Your task to perform on an android device: show emergency info Image 0: 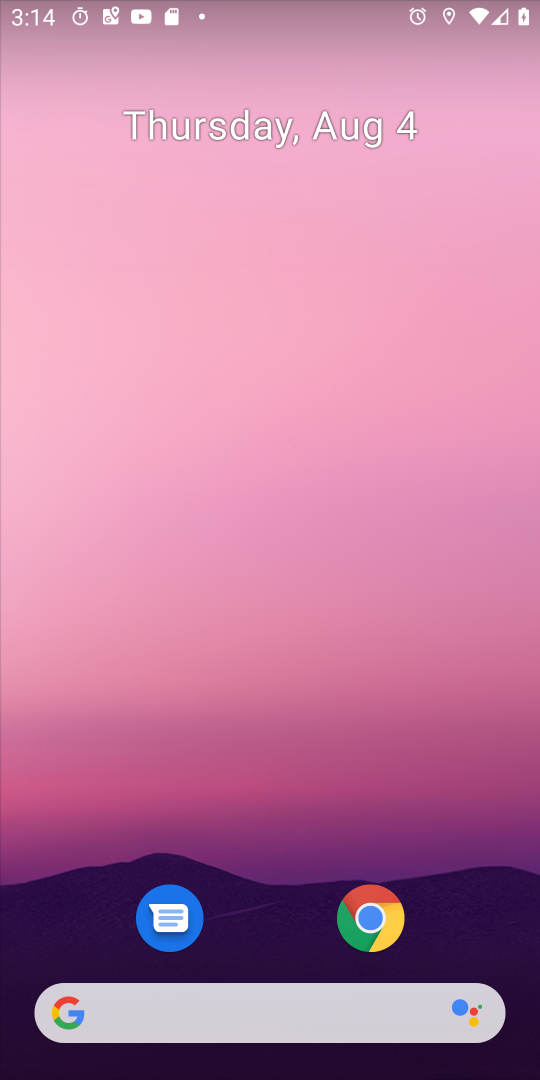
Step 0: drag from (232, 697) to (238, 259)
Your task to perform on an android device: show emergency info Image 1: 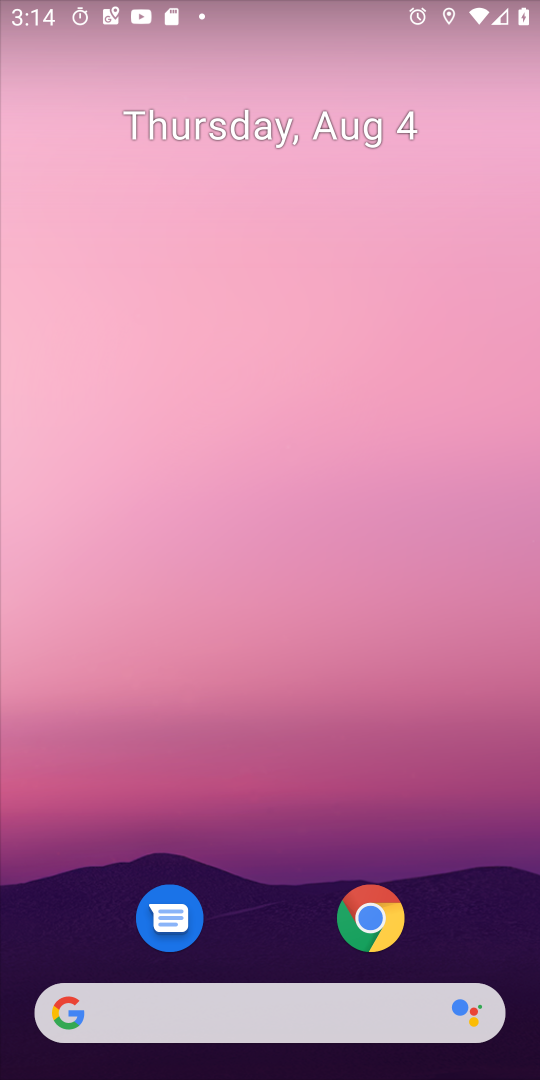
Step 1: drag from (272, 851) to (272, 296)
Your task to perform on an android device: show emergency info Image 2: 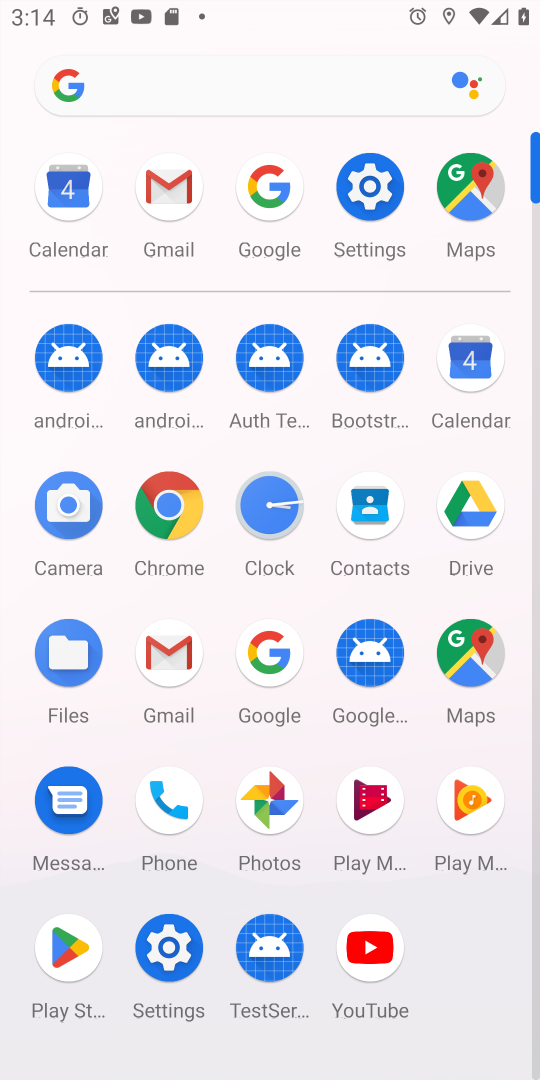
Step 2: click (365, 192)
Your task to perform on an android device: show emergency info Image 3: 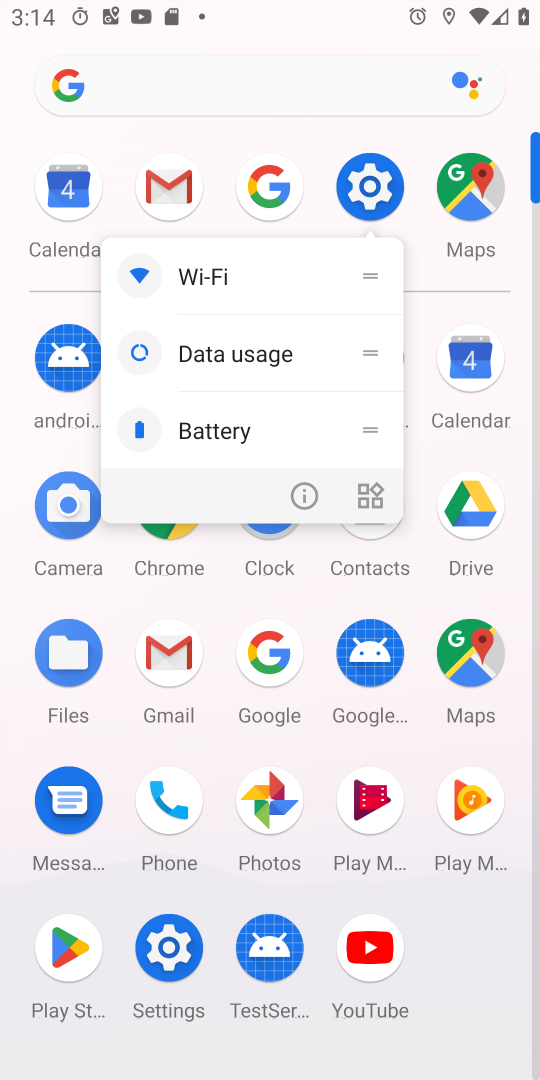
Step 3: click (365, 192)
Your task to perform on an android device: show emergency info Image 4: 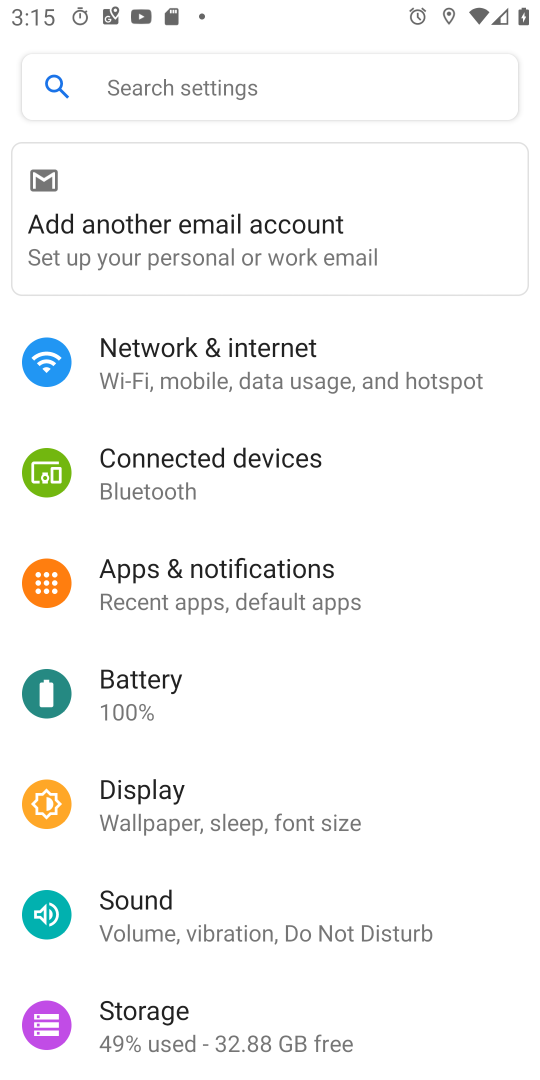
Step 4: drag from (353, 904) to (351, 366)
Your task to perform on an android device: show emergency info Image 5: 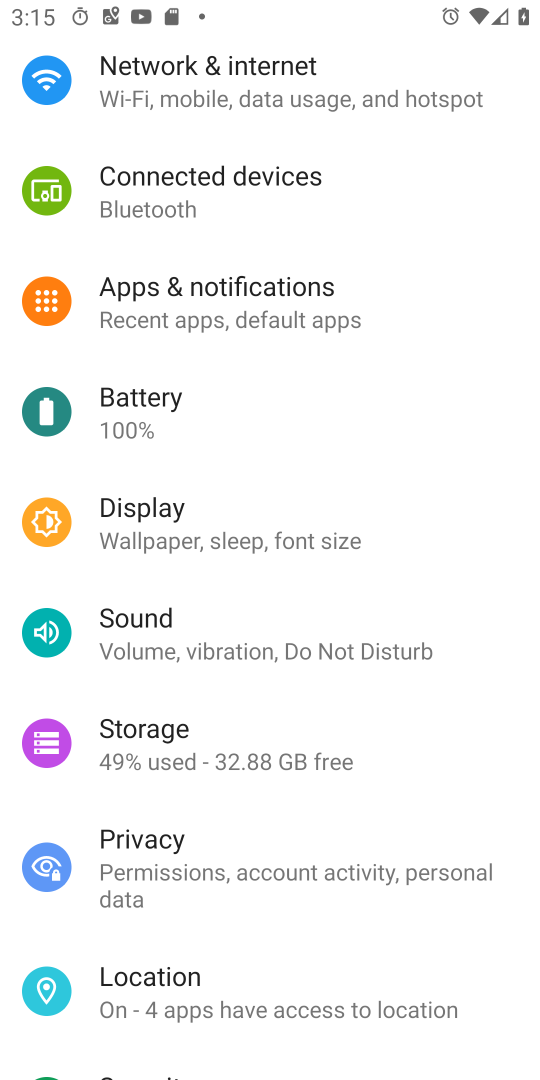
Step 5: drag from (305, 878) to (307, 344)
Your task to perform on an android device: show emergency info Image 6: 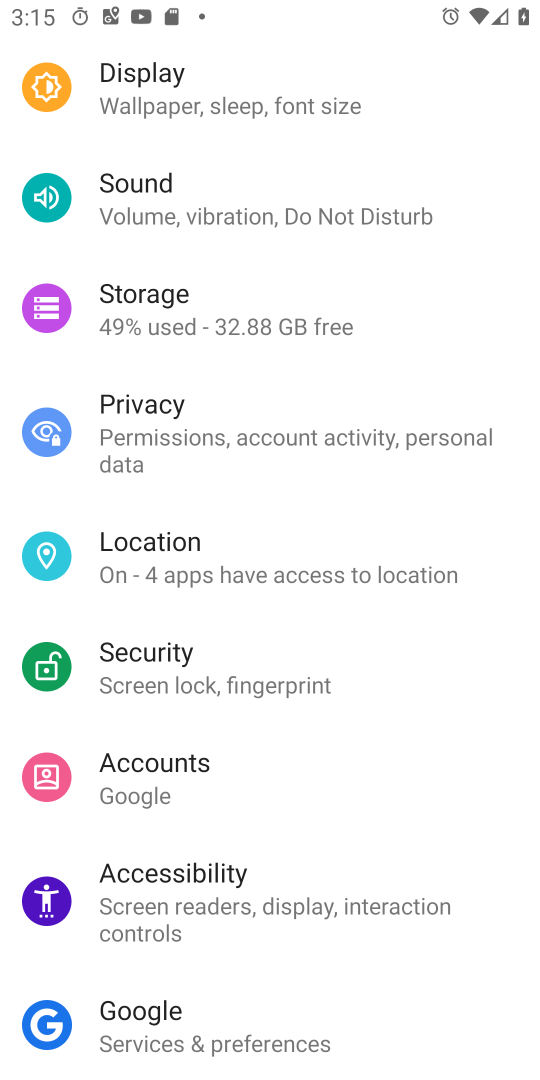
Step 6: drag from (262, 918) to (262, 380)
Your task to perform on an android device: show emergency info Image 7: 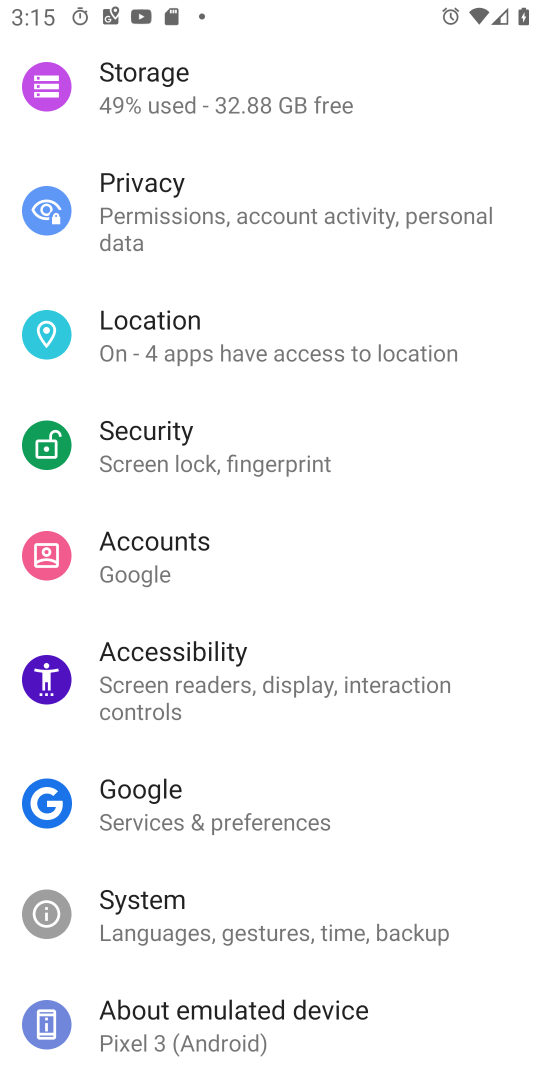
Step 7: drag from (270, 851) to (270, 596)
Your task to perform on an android device: show emergency info Image 8: 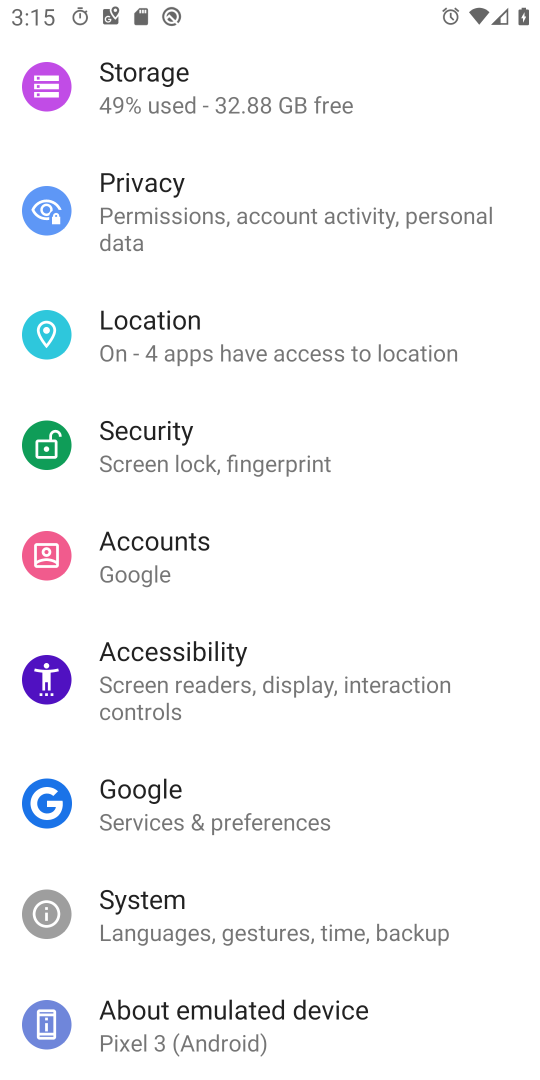
Step 8: click (294, 1020)
Your task to perform on an android device: show emergency info Image 9: 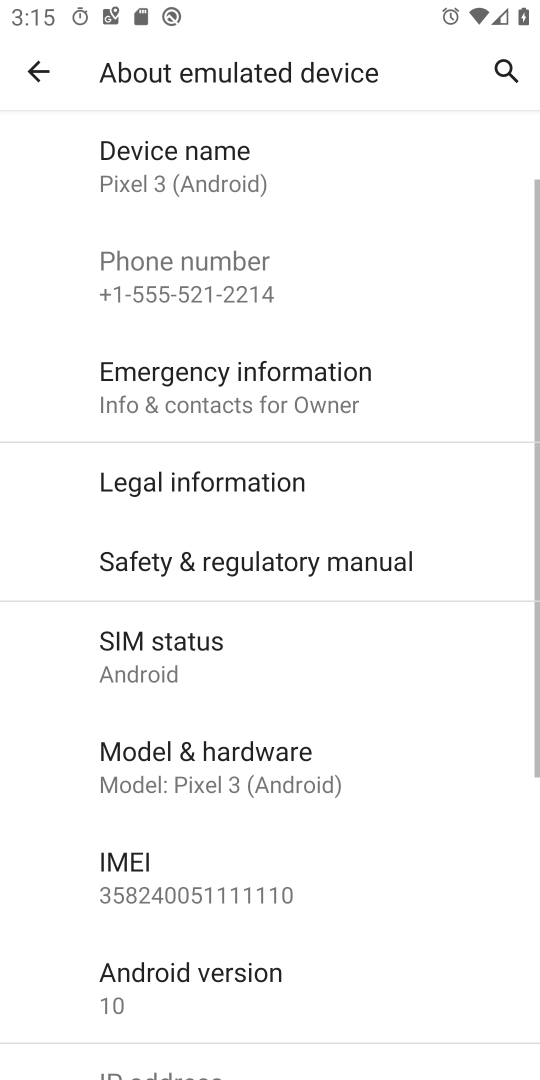
Step 9: click (210, 423)
Your task to perform on an android device: show emergency info Image 10: 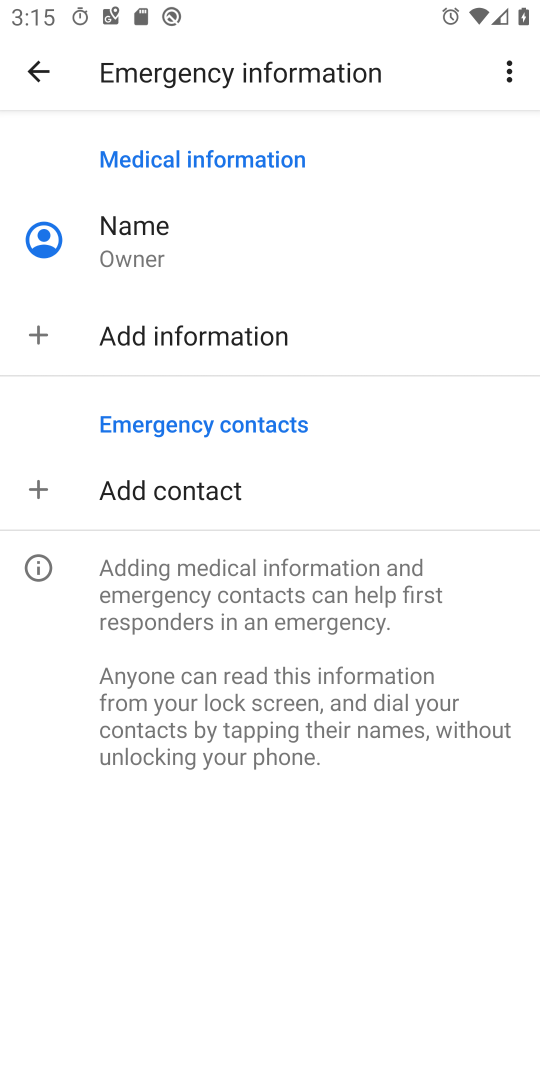
Step 10: task complete